Your task to perform on an android device: Go to Android settings Image 0: 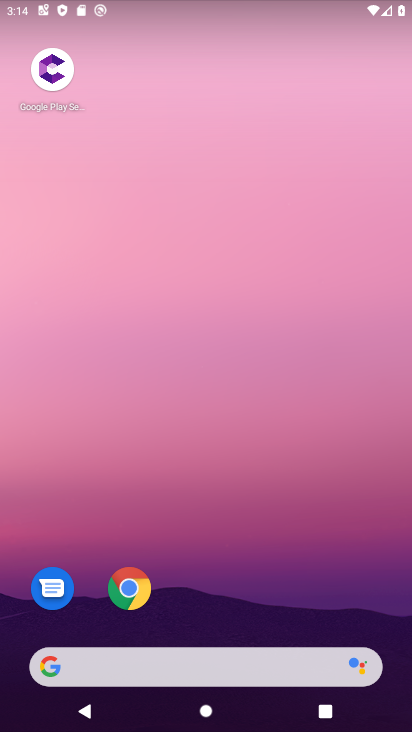
Step 0: drag from (278, 584) to (236, 120)
Your task to perform on an android device: Go to Android settings Image 1: 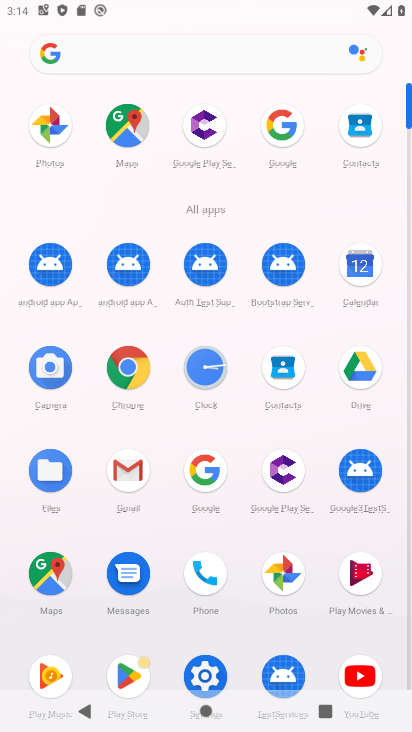
Step 1: click (215, 675)
Your task to perform on an android device: Go to Android settings Image 2: 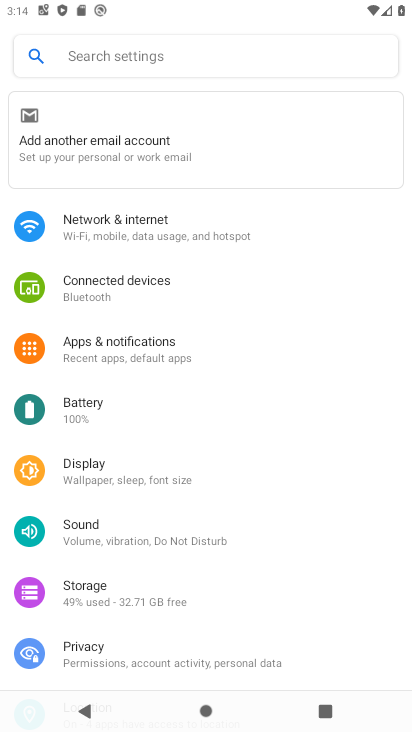
Step 2: drag from (215, 675) to (122, 183)
Your task to perform on an android device: Go to Android settings Image 3: 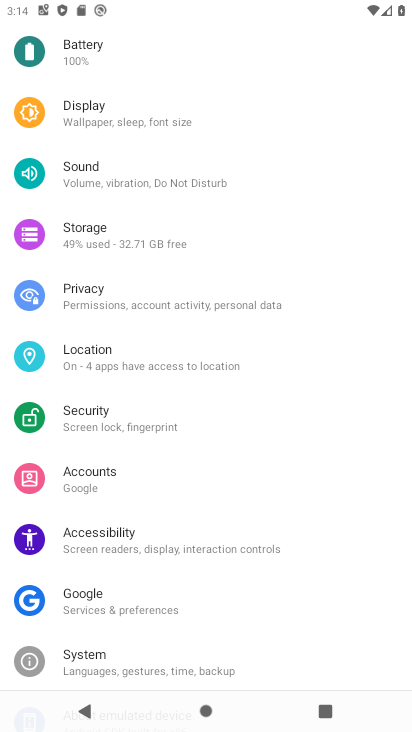
Step 3: click (141, 666)
Your task to perform on an android device: Go to Android settings Image 4: 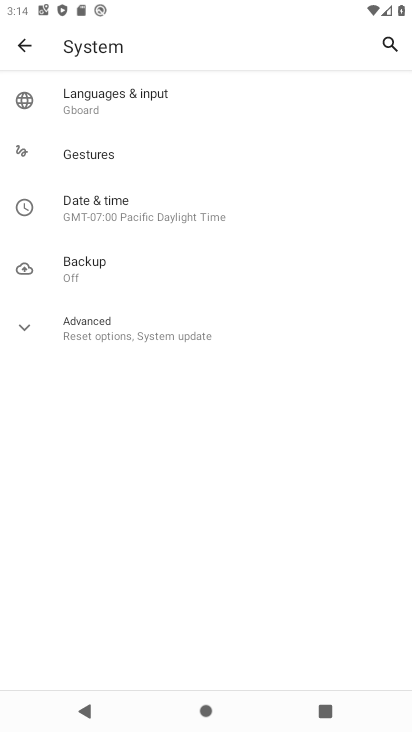
Step 4: task complete